Your task to perform on an android device: turn vacation reply on in the gmail app Image 0: 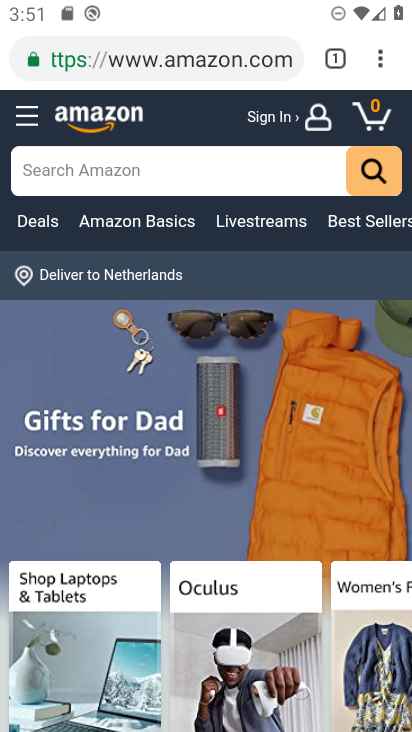
Step 0: press back button
Your task to perform on an android device: turn vacation reply on in the gmail app Image 1: 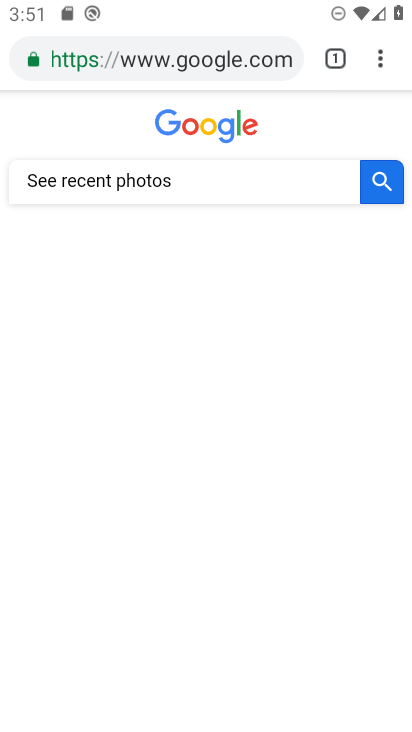
Step 1: press home button
Your task to perform on an android device: turn vacation reply on in the gmail app Image 2: 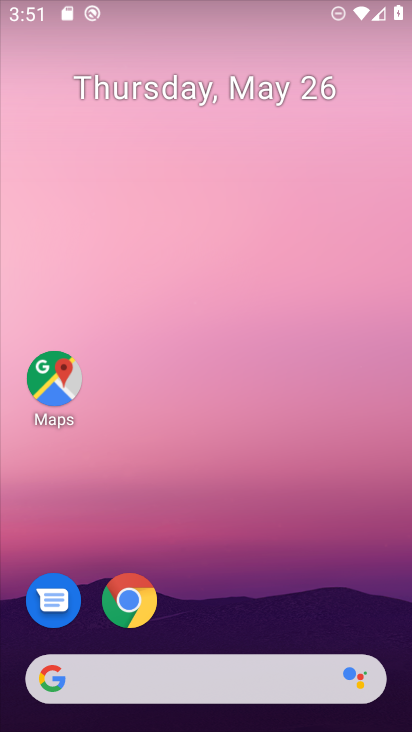
Step 2: drag from (263, 591) to (198, 50)
Your task to perform on an android device: turn vacation reply on in the gmail app Image 3: 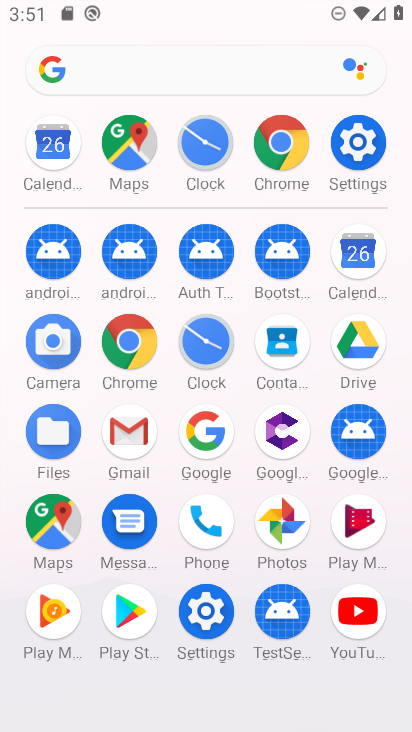
Step 3: drag from (0, 519) to (3, 217)
Your task to perform on an android device: turn vacation reply on in the gmail app Image 4: 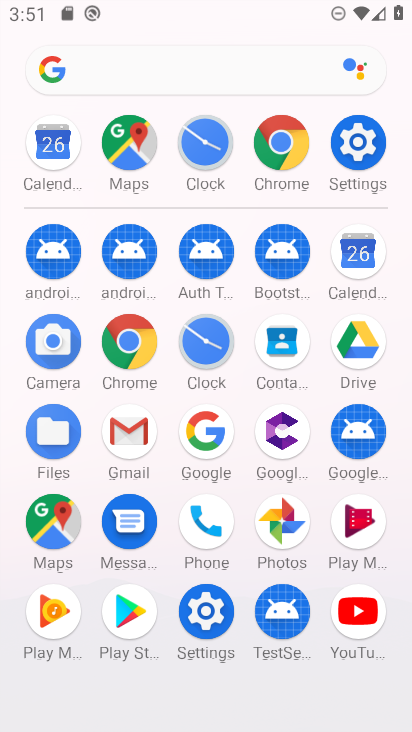
Step 4: click (127, 419)
Your task to perform on an android device: turn vacation reply on in the gmail app Image 5: 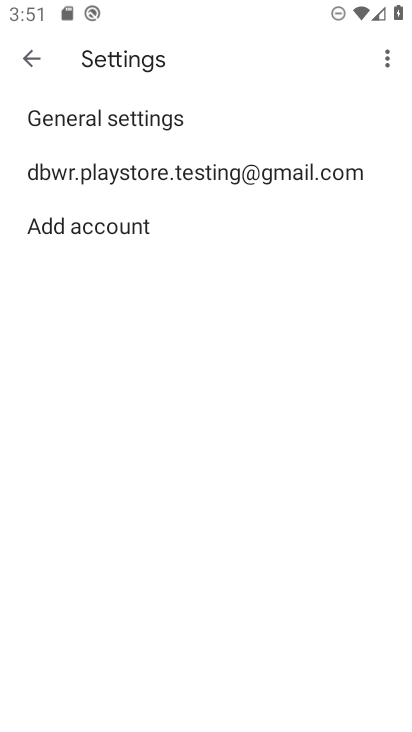
Step 5: click (115, 172)
Your task to perform on an android device: turn vacation reply on in the gmail app Image 6: 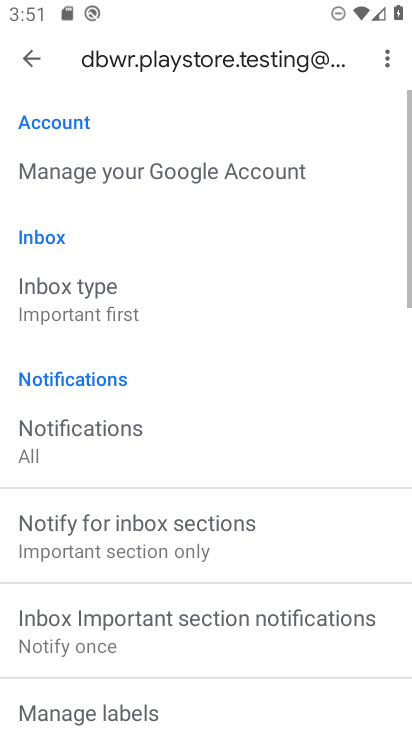
Step 6: task complete